Your task to perform on an android device: Open accessibility settings Image 0: 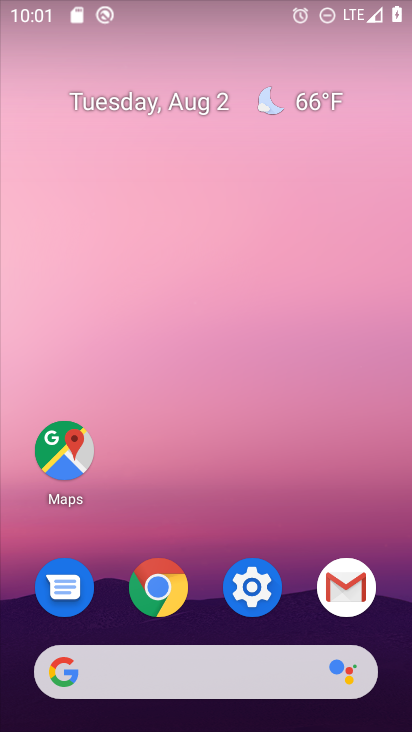
Step 0: press home button
Your task to perform on an android device: Open accessibility settings Image 1: 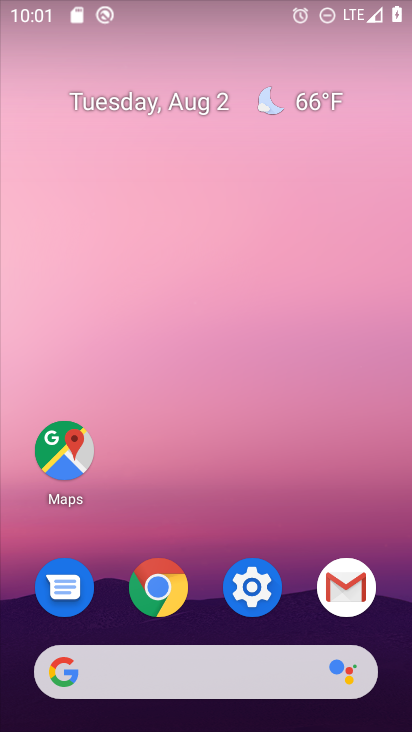
Step 1: click (245, 597)
Your task to perform on an android device: Open accessibility settings Image 2: 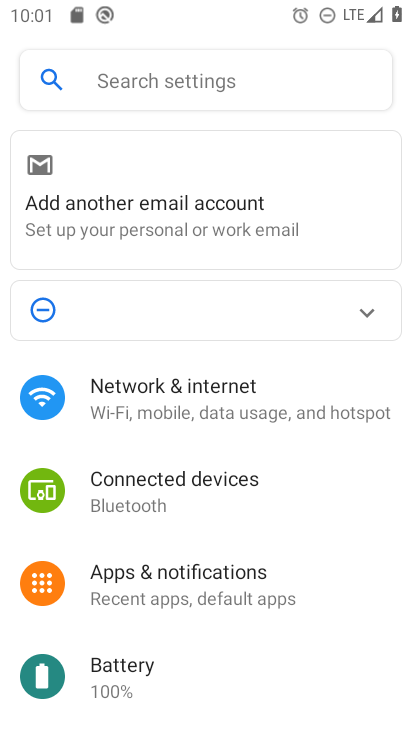
Step 2: click (138, 98)
Your task to perform on an android device: Open accessibility settings Image 3: 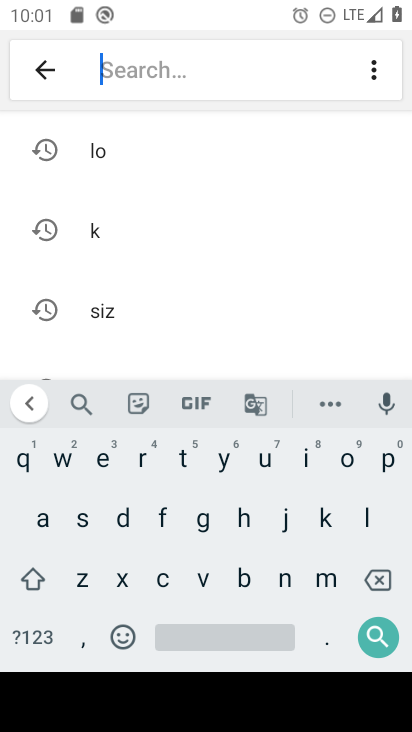
Step 3: click (35, 517)
Your task to perform on an android device: Open accessibility settings Image 4: 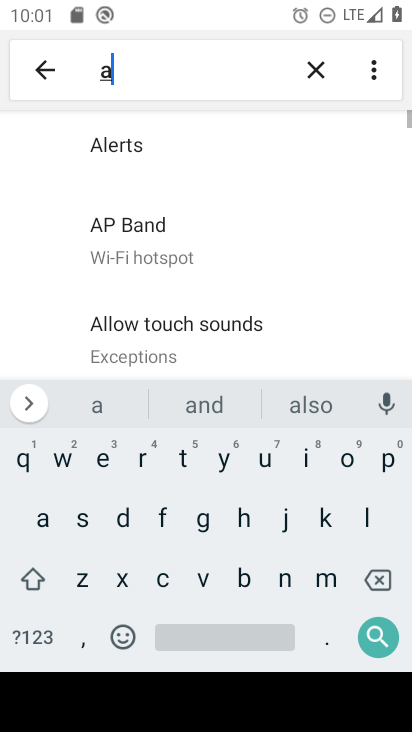
Step 4: click (149, 578)
Your task to perform on an android device: Open accessibility settings Image 5: 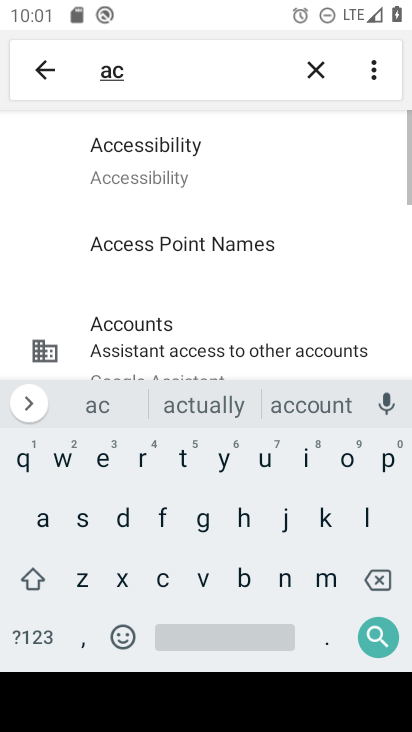
Step 5: click (160, 161)
Your task to perform on an android device: Open accessibility settings Image 6: 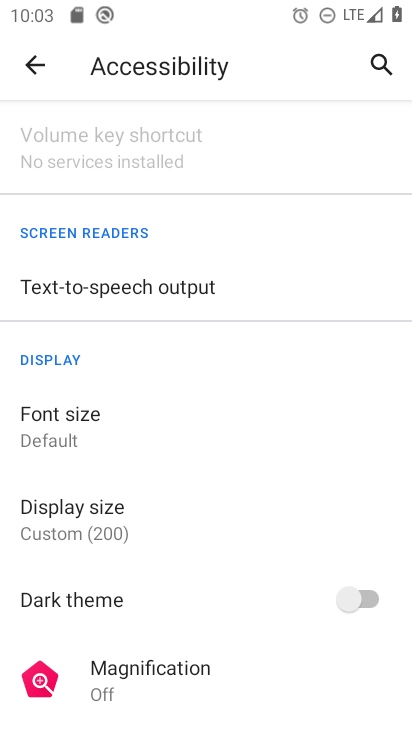
Step 6: task complete